Your task to perform on an android device: Open Android settings Image 0: 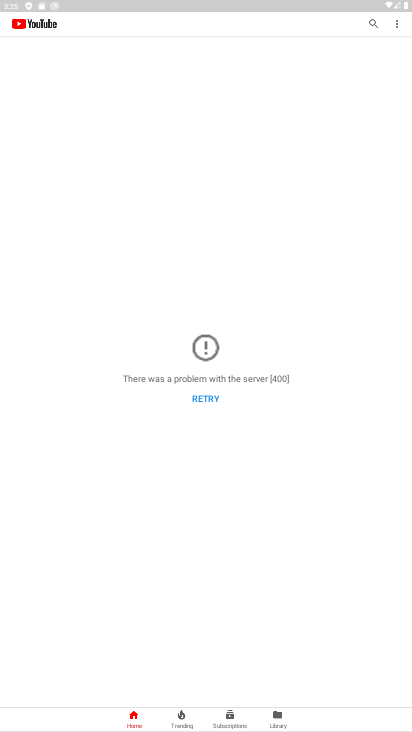
Step 0: press home button
Your task to perform on an android device: Open Android settings Image 1: 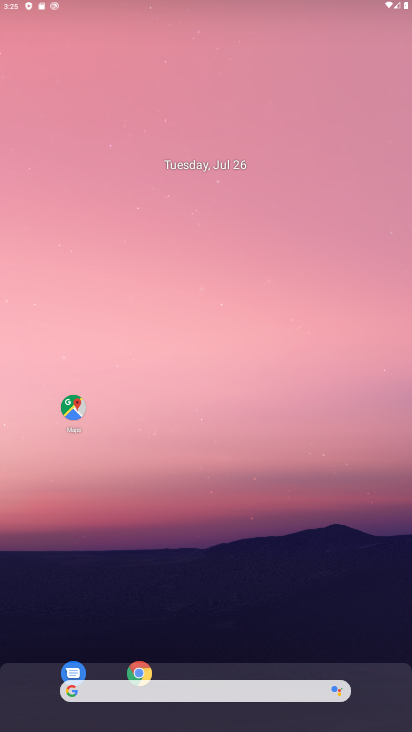
Step 1: drag from (200, 691) to (200, 292)
Your task to perform on an android device: Open Android settings Image 2: 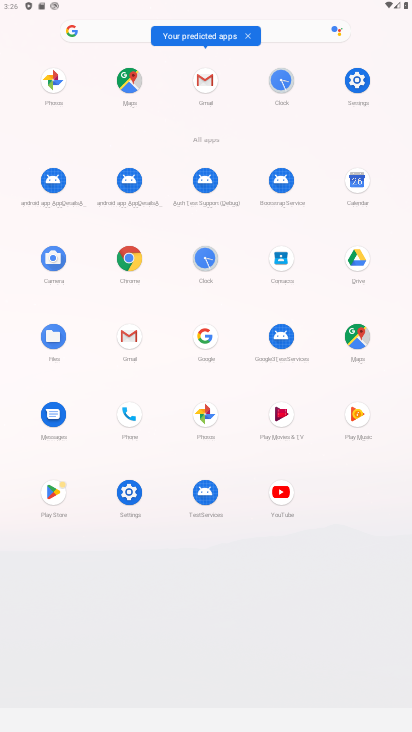
Step 2: click (356, 69)
Your task to perform on an android device: Open Android settings Image 3: 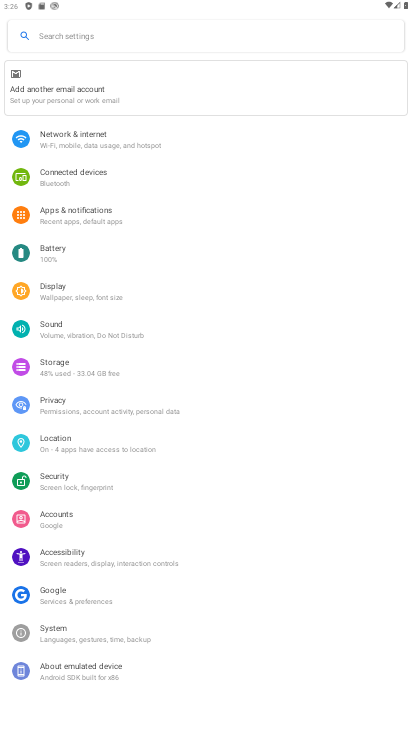
Step 3: task complete